Your task to perform on an android device: Go to ESPN.com Image 0: 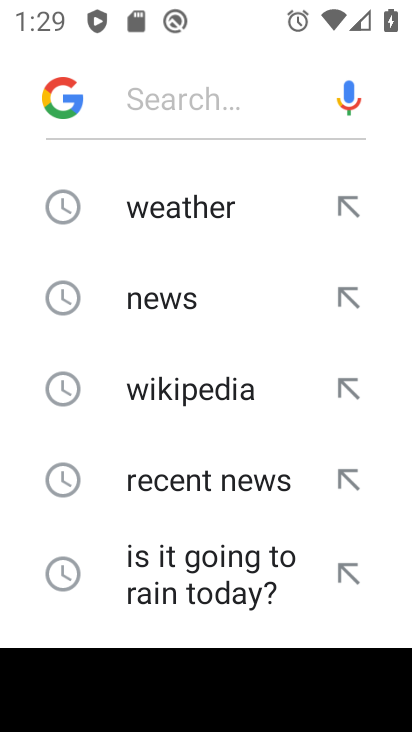
Step 0: press back button
Your task to perform on an android device: Go to ESPN.com Image 1: 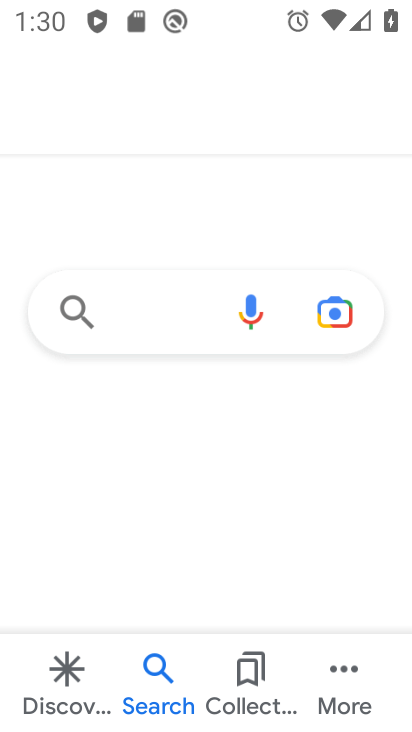
Step 1: press back button
Your task to perform on an android device: Go to ESPN.com Image 2: 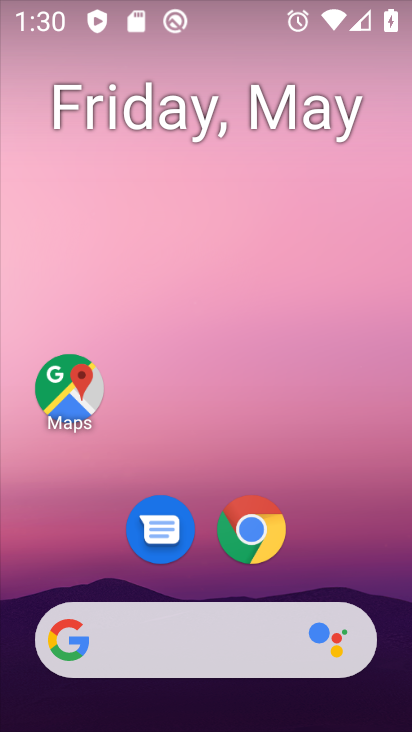
Step 2: click (245, 526)
Your task to perform on an android device: Go to ESPN.com Image 3: 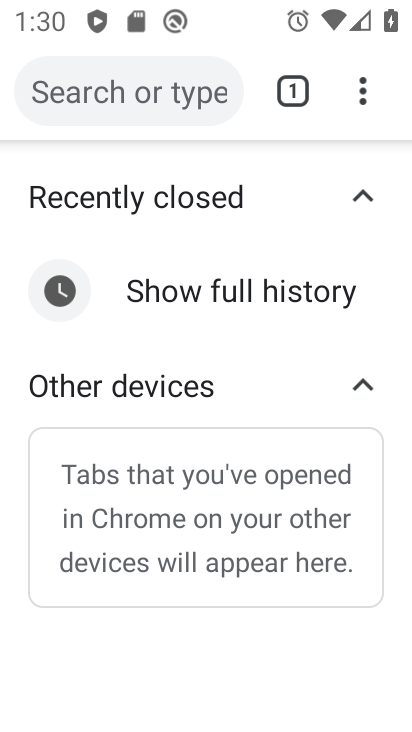
Step 3: click (213, 88)
Your task to perform on an android device: Go to ESPN.com Image 4: 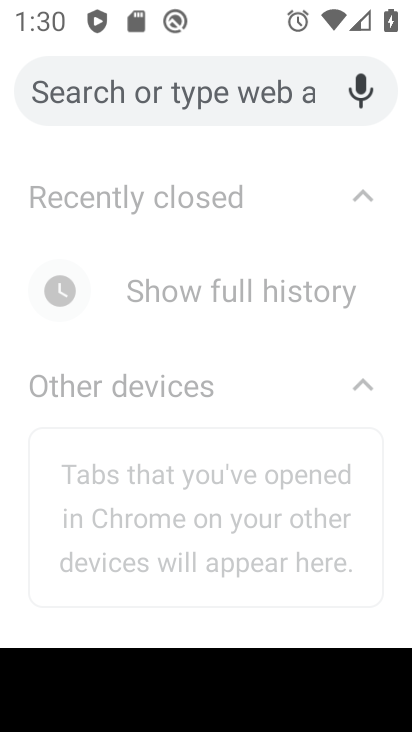
Step 4: type " ESPN.com"
Your task to perform on an android device: Go to ESPN.com Image 5: 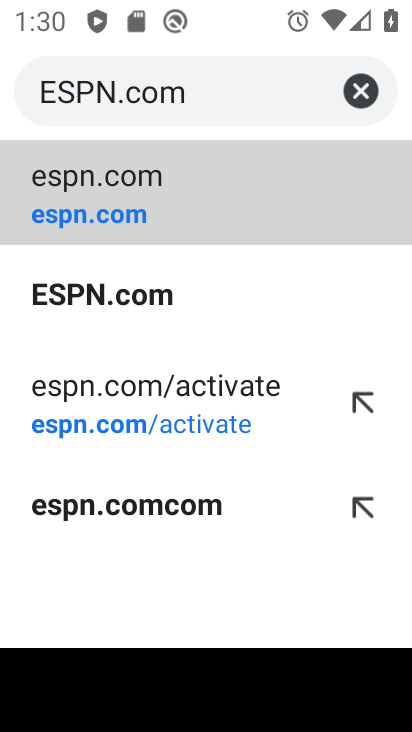
Step 5: click (88, 292)
Your task to perform on an android device: Go to ESPN.com Image 6: 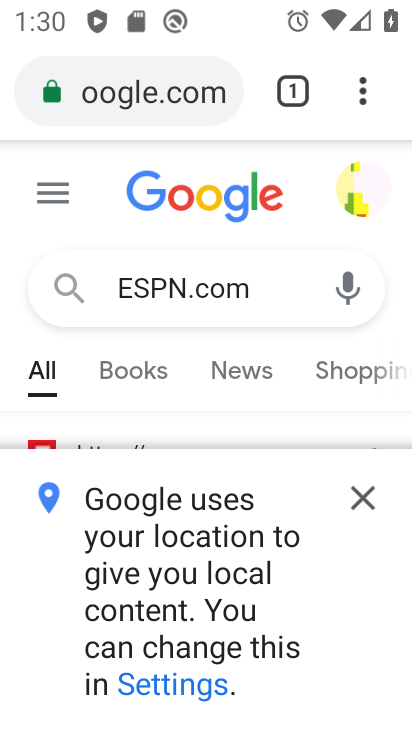
Step 6: task complete